Your task to perform on an android device: When is my next appointment? Image 0: 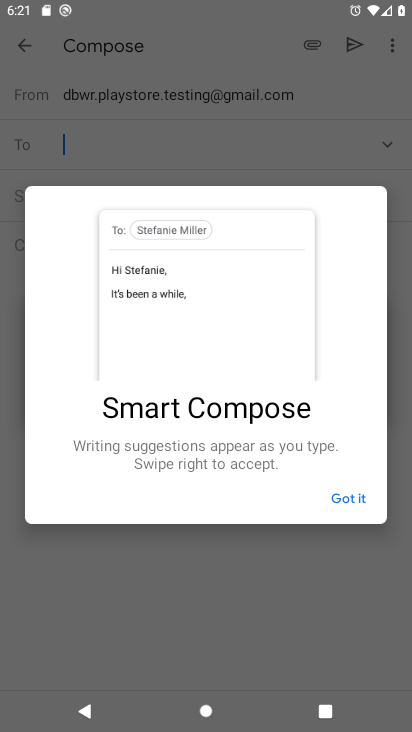
Step 0: press home button
Your task to perform on an android device: When is my next appointment? Image 1: 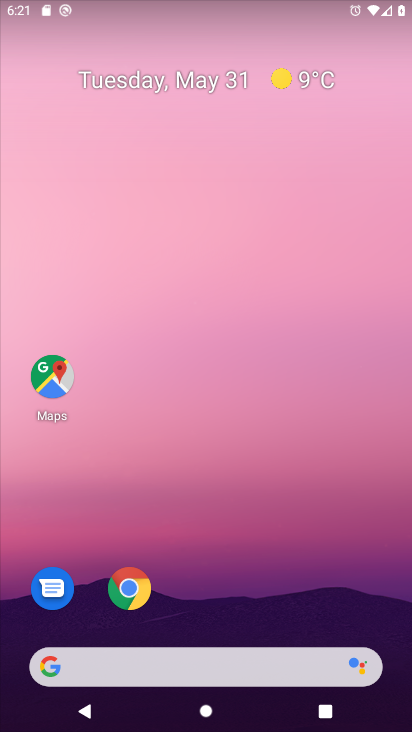
Step 1: drag from (210, 626) to (291, 59)
Your task to perform on an android device: When is my next appointment? Image 2: 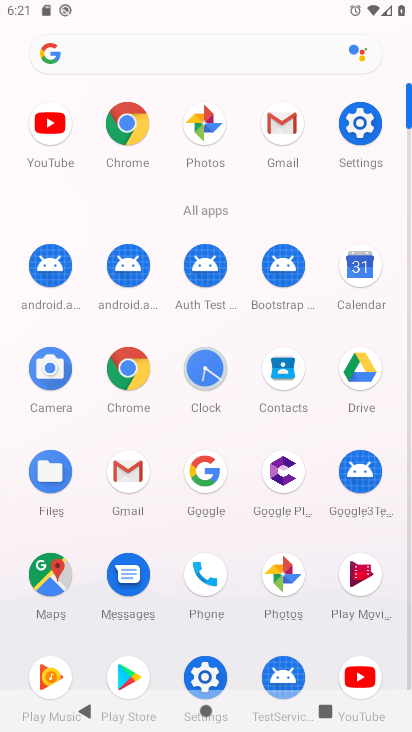
Step 2: click (354, 305)
Your task to perform on an android device: When is my next appointment? Image 3: 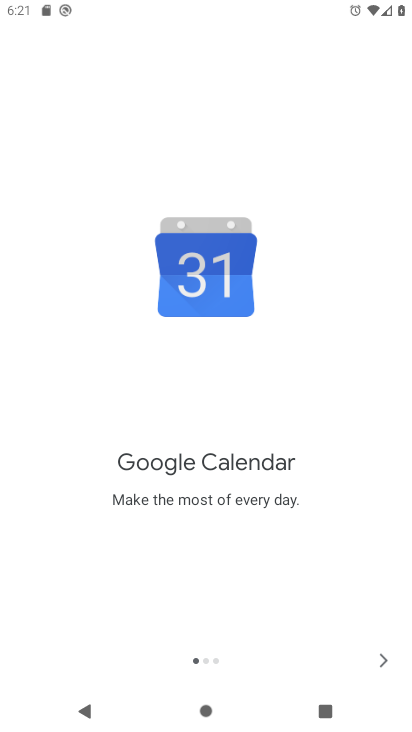
Step 3: click (380, 652)
Your task to perform on an android device: When is my next appointment? Image 4: 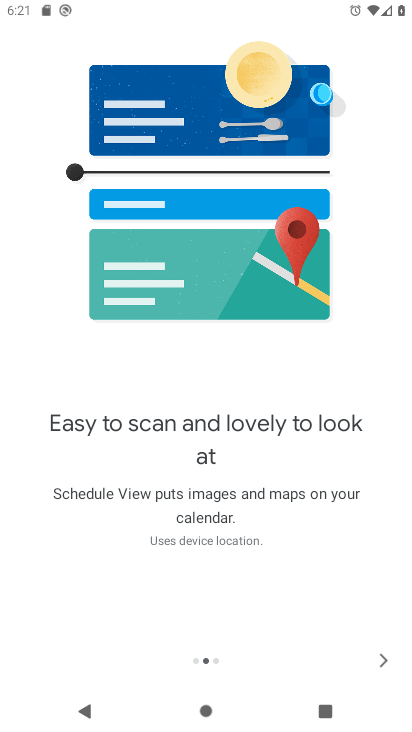
Step 4: click (380, 653)
Your task to perform on an android device: When is my next appointment? Image 5: 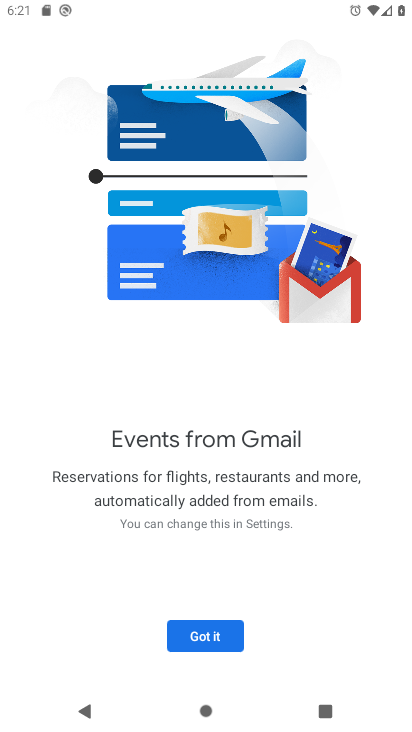
Step 5: click (180, 622)
Your task to perform on an android device: When is my next appointment? Image 6: 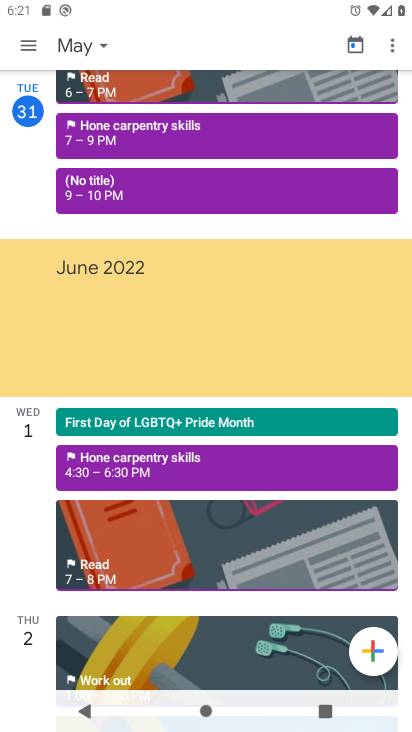
Step 6: task complete